Your task to perform on an android device: change the clock display to digital Image 0: 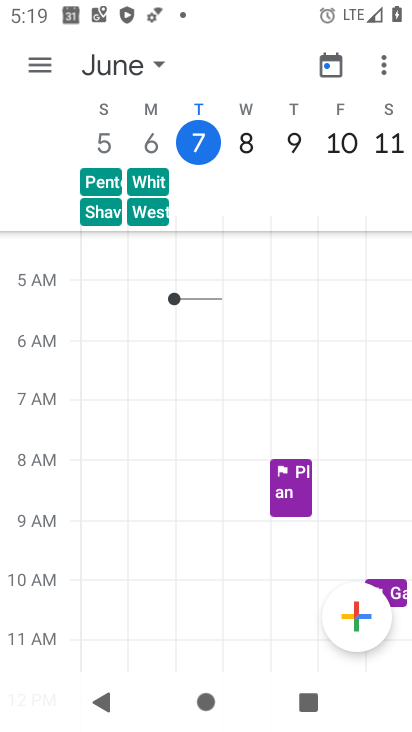
Step 0: press home button
Your task to perform on an android device: change the clock display to digital Image 1: 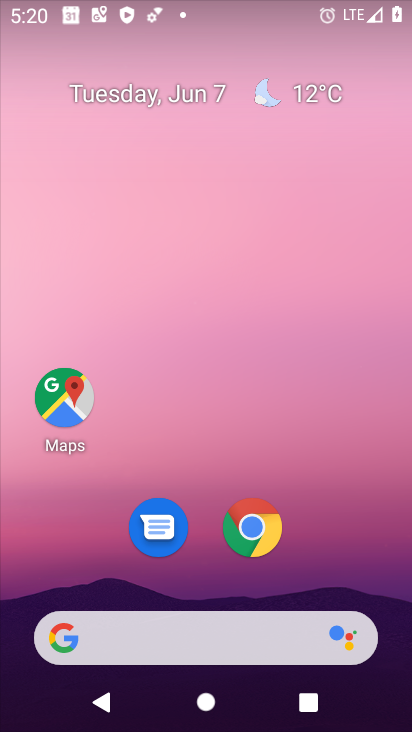
Step 1: drag from (315, 539) to (283, 74)
Your task to perform on an android device: change the clock display to digital Image 2: 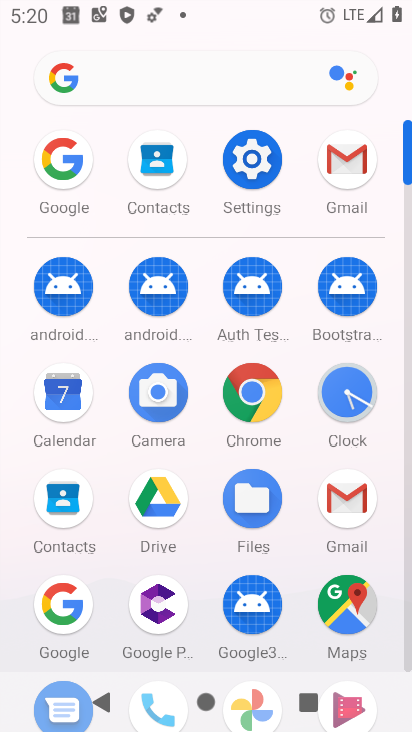
Step 2: click (348, 391)
Your task to perform on an android device: change the clock display to digital Image 3: 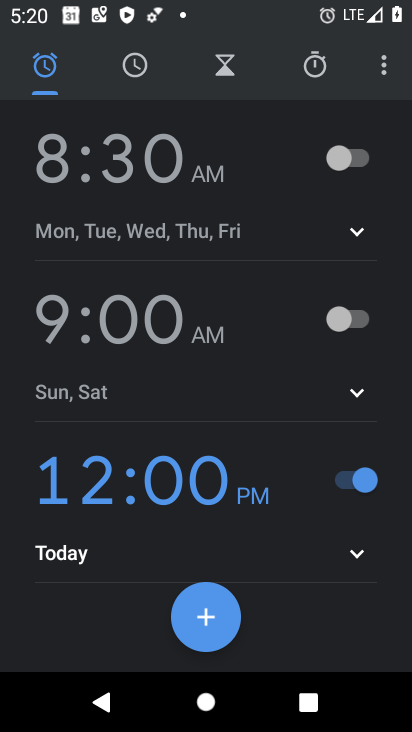
Step 3: click (382, 64)
Your task to perform on an android device: change the clock display to digital Image 4: 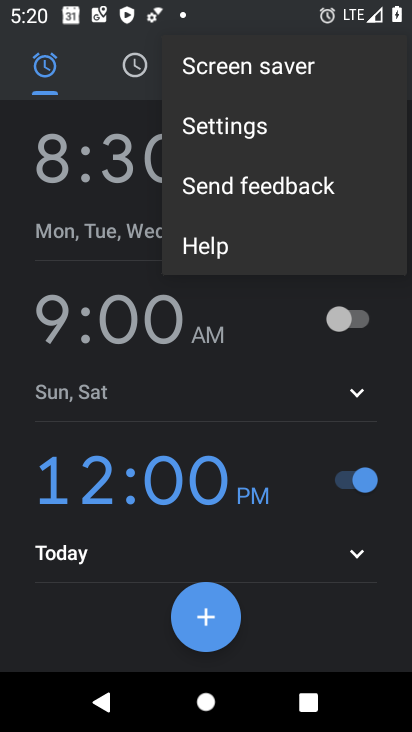
Step 4: click (246, 123)
Your task to perform on an android device: change the clock display to digital Image 5: 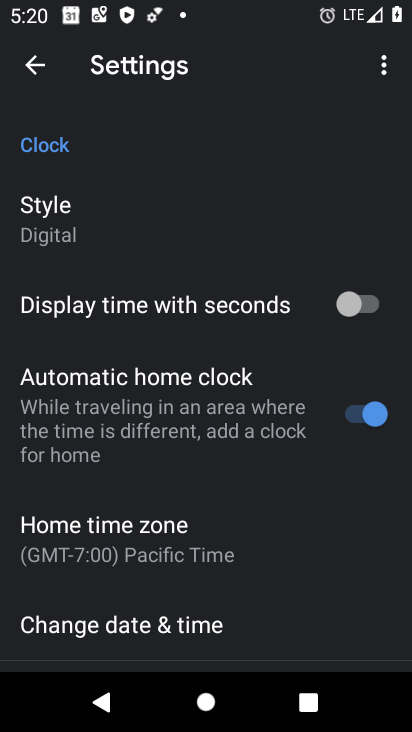
Step 5: click (51, 220)
Your task to perform on an android device: change the clock display to digital Image 6: 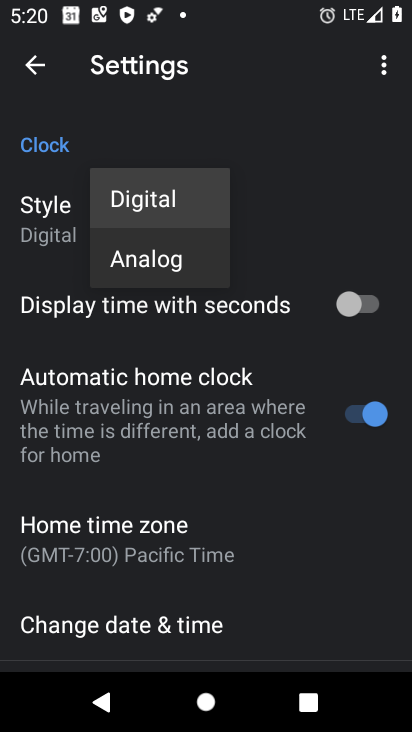
Step 6: click (112, 205)
Your task to perform on an android device: change the clock display to digital Image 7: 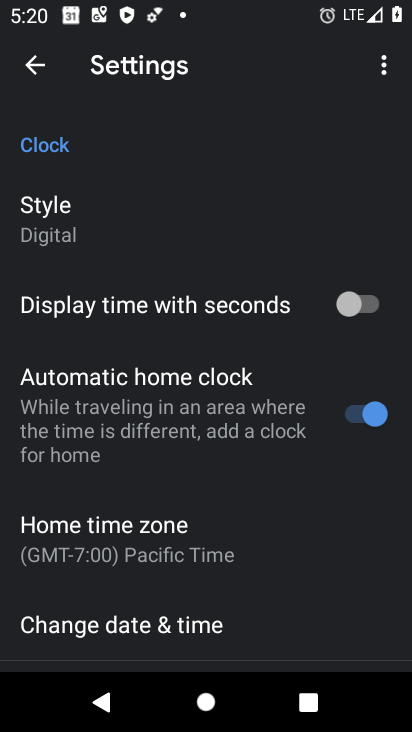
Step 7: task complete